Your task to perform on an android device: set the timer Image 0: 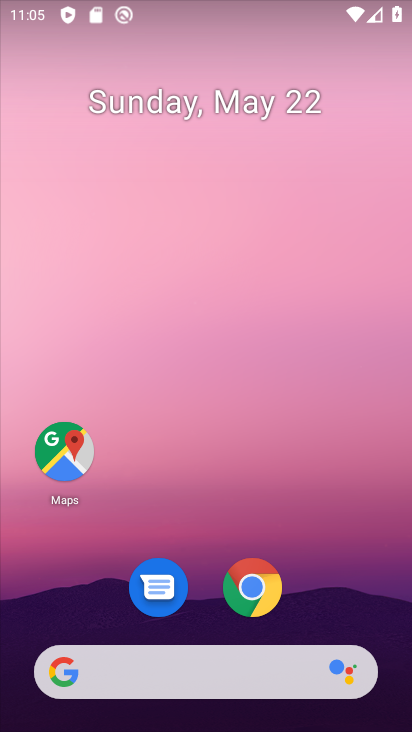
Step 0: drag from (355, 583) to (322, 174)
Your task to perform on an android device: set the timer Image 1: 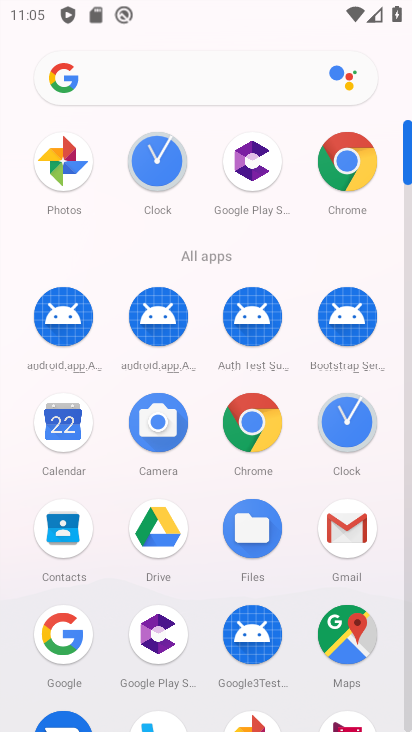
Step 1: click (352, 439)
Your task to perform on an android device: set the timer Image 2: 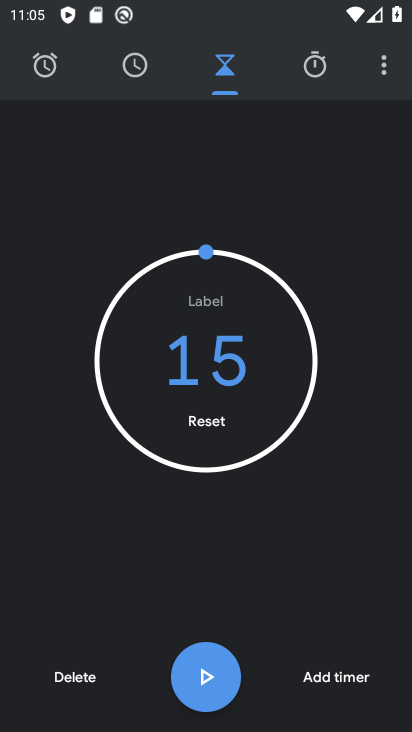
Step 2: task complete